Your task to perform on an android device: turn off location history Image 0: 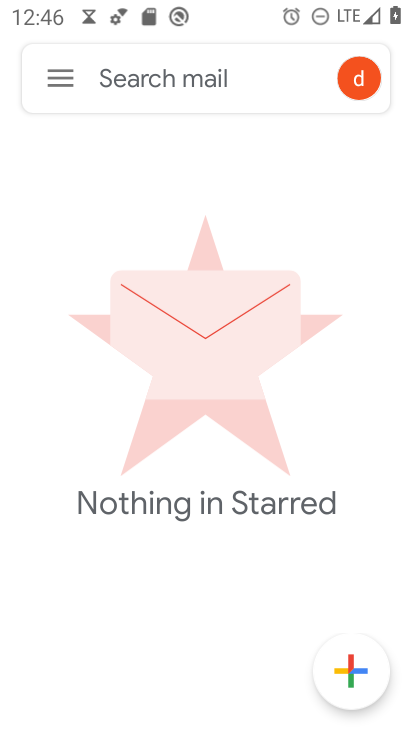
Step 0: click (68, 78)
Your task to perform on an android device: turn off location history Image 1: 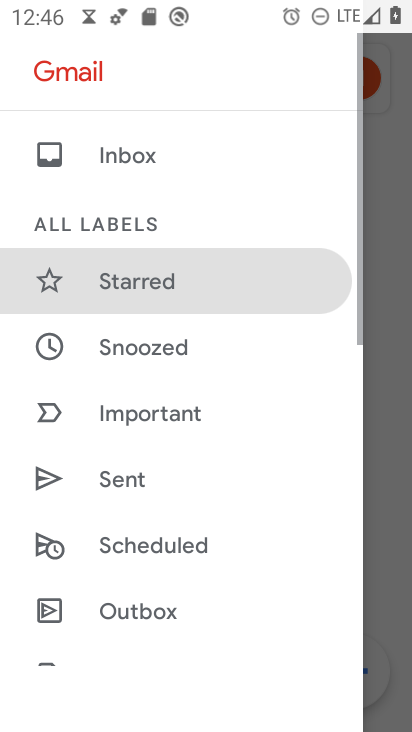
Step 1: drag from (158, 598) to (137, 203)
Your task to perform on an android device: turn off location history Image 2: 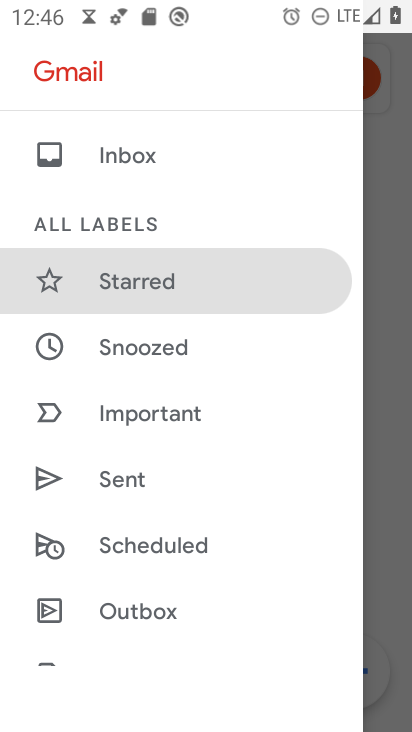
Step 2: press home button
Your task to perform on an android device: turn off location history Image 3: 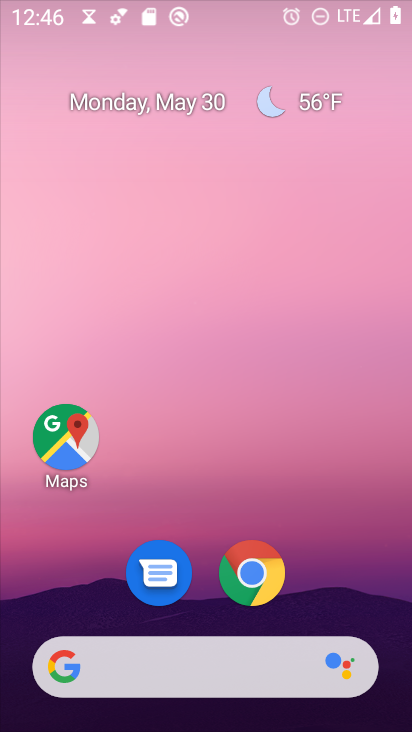
Step 3: drag from (236, 585) to (277, 34)
Your task to perform on an android device: turn off location history Image 4: 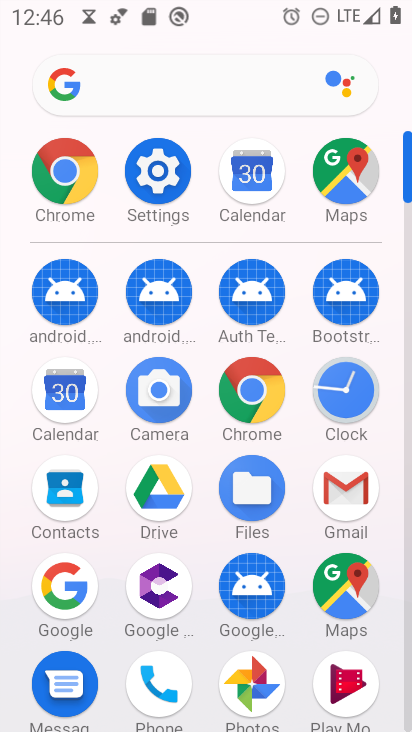
Step 4: click (150, 185)
Your task to perform on an android device: turn off location history Image 5: 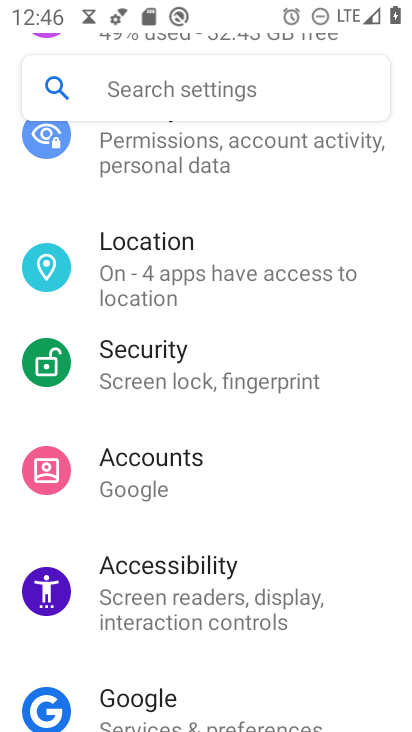
Step 5: drag from (280, 296) to (265, 728)
Your task to perform on an android device: turn off location history Image 6: 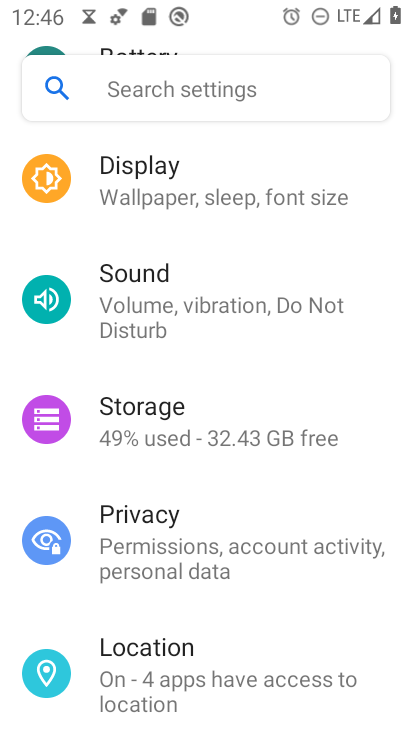
Step 6: click (260, 689)
Your task to perform on an android device: turn off location history Image 7: 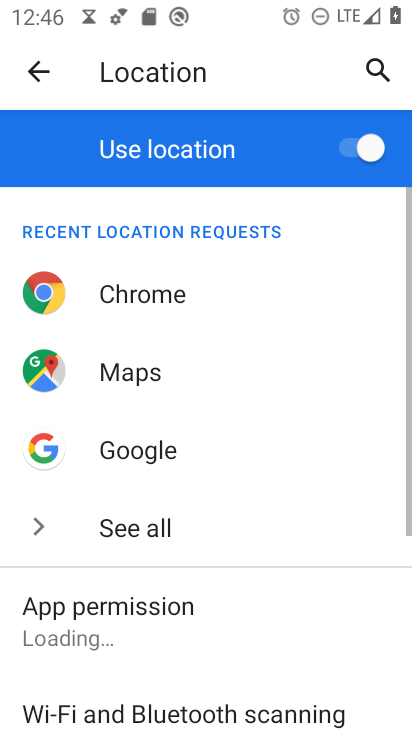
Step 7: drag from (261, 689) to (291, 116)
Your task to perform on an android device: turn off location history Image 8: 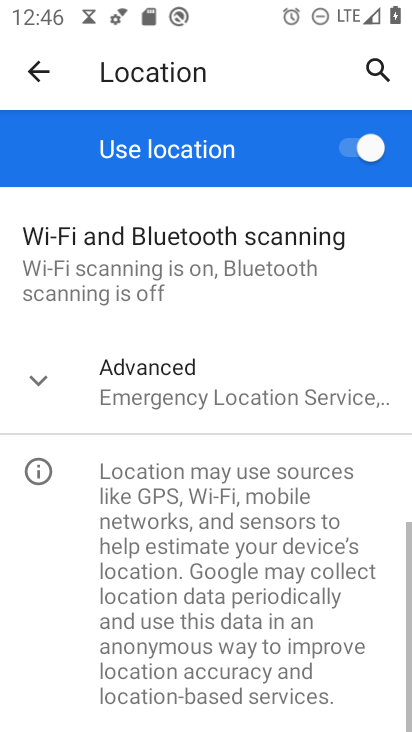
Step 8: click (248, 398)
Your task to perform on an android device: turn off location history Image 9: 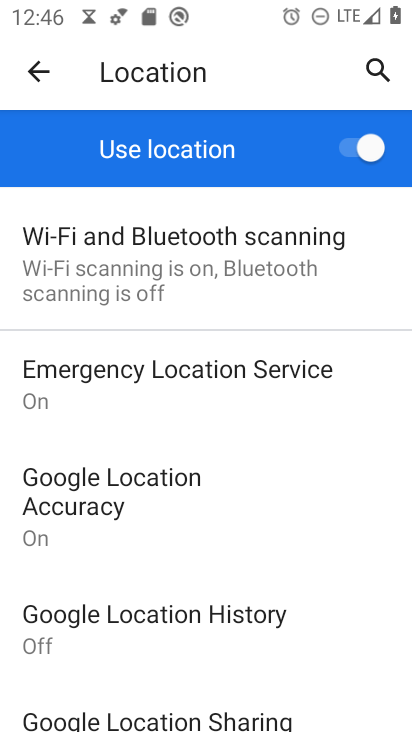
Step 9: task complete